Your task to perform on an android device: set the stopwatch Image 0: 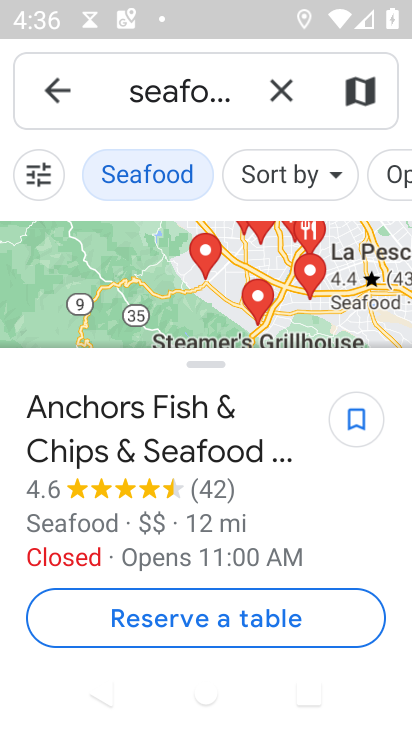
Step 0: press home button
Your task to perform on an android device: set the stopwatch Image 1: 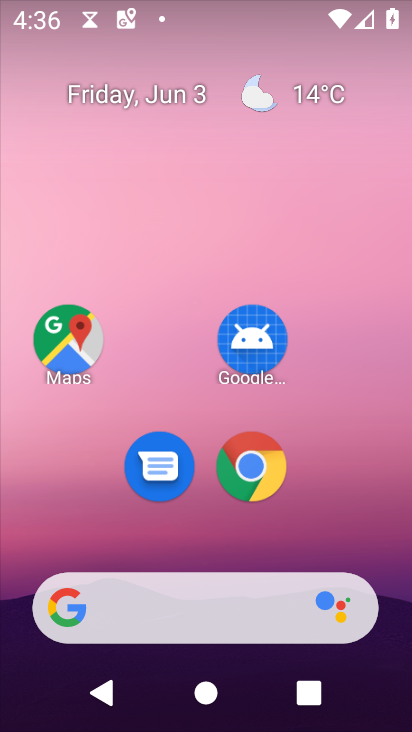
Step 1: drag from (395, 535) to (350, 65)
Your task to perform on an android device: set the stopwatch Image 2: 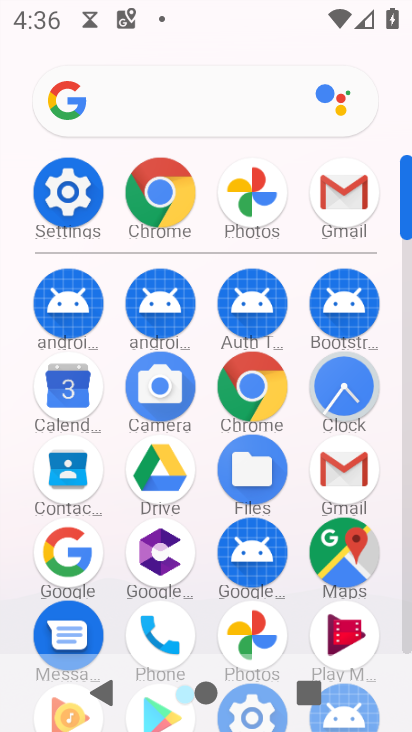
Step 2: click (345, 379)
Your task to perform on an android device: set the stopwatch Image 3: 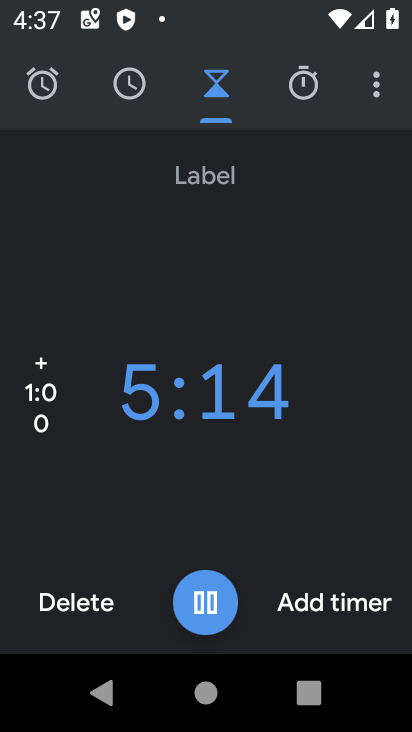
Step 3: click (199, 600)
Your task to perform on an android device: set the stopwatch Image 4: 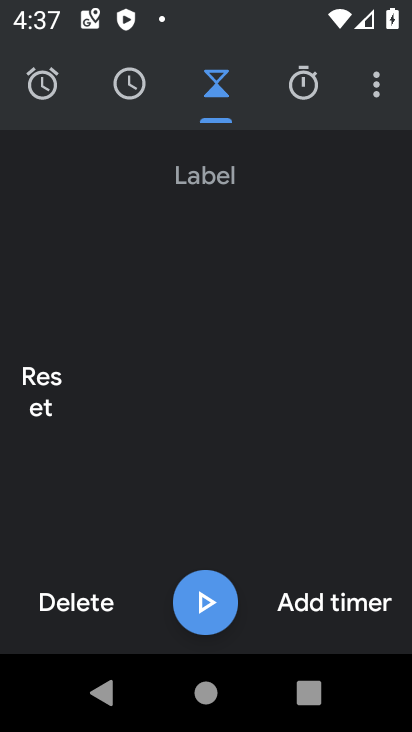
Step 4: click (310, 586)
Your task to perform on an android device: set the stopwatch Image 5: 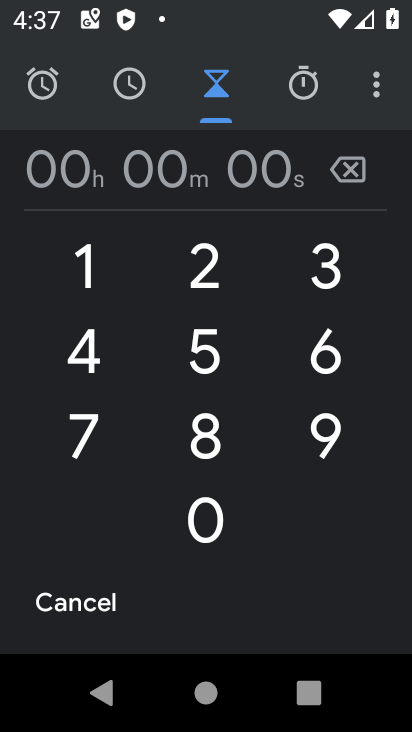
Step 5: click (83, 256)
Your task to perform on an android device: set the stopwatch Image 6: 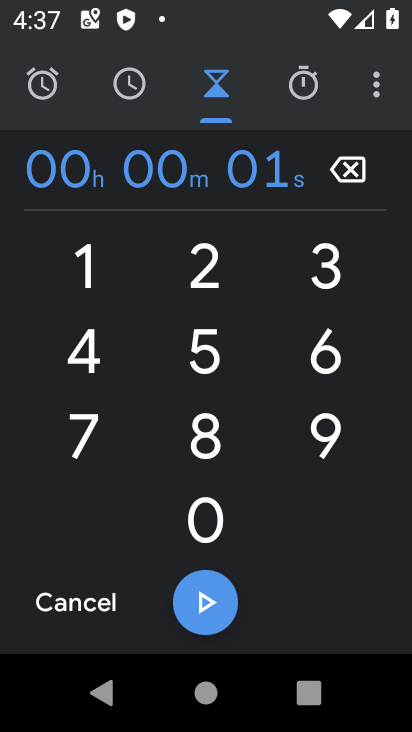
Step 6: click (83, 256)
Your task to perform on an android device: set the stopwatch Image 7: 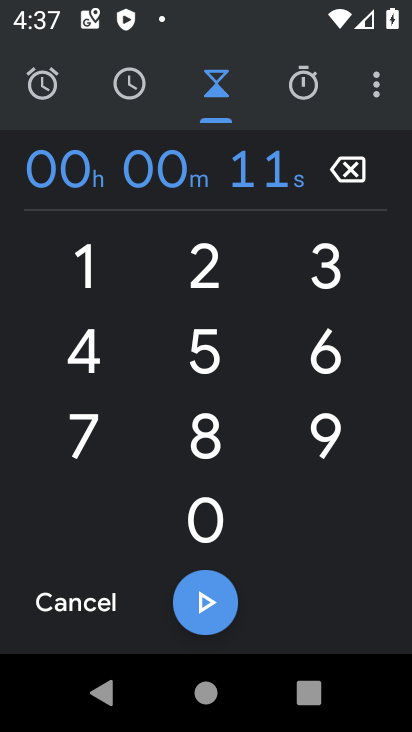
Step 7: click (220, 359)
Your task to perform on an android device: set the stopwatch Image 8: 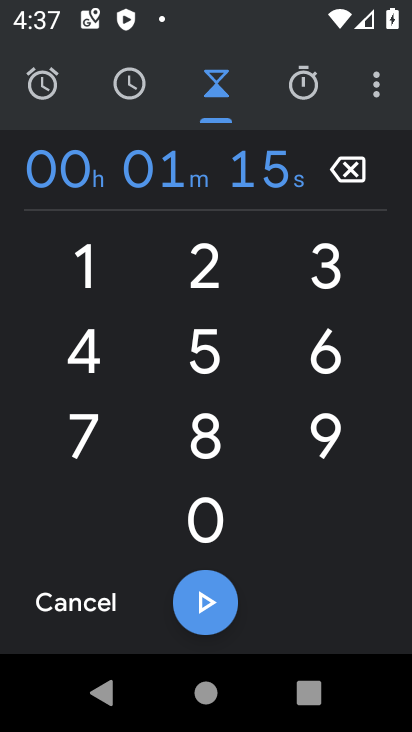
Step 8: click (226, 333)
Your task to perform on an android device: set the stopwatch Image 9: 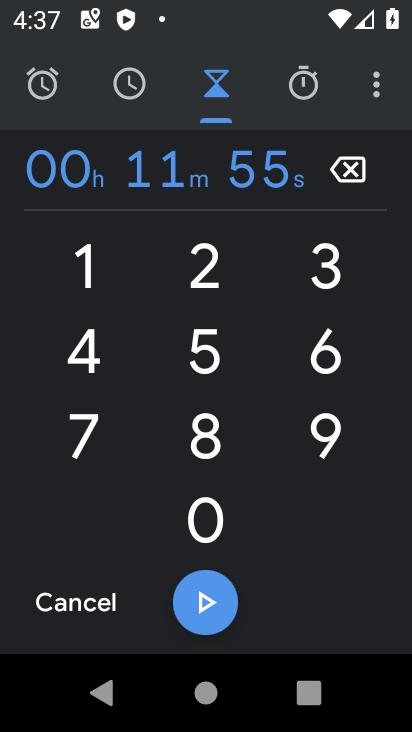
Step 9: click (317, 434)
Your task to perform on an android device: set the stopwatch Image 10: 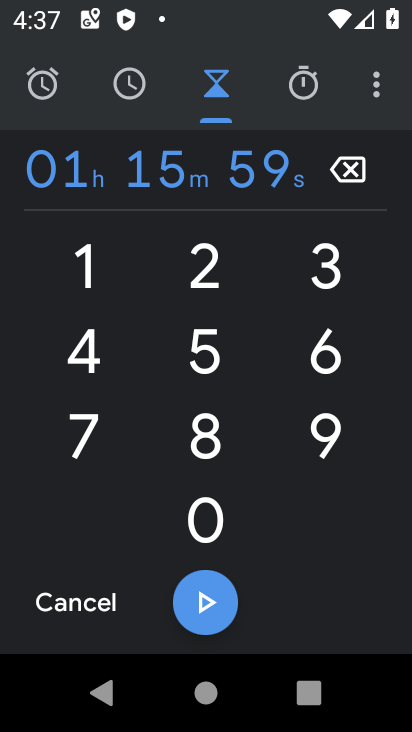
Step 10: click (202, 606)
Your task to perform on an android device: set the stopwatch Image 11: 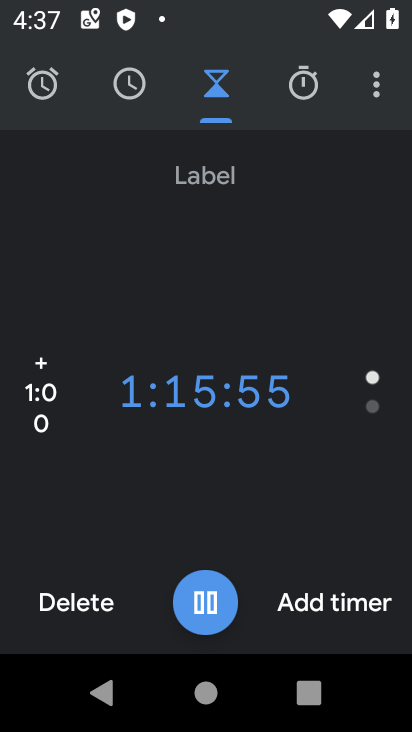
Step 11: task complete